Your task to perform on an android device: create a new album in the google photos Image 0: 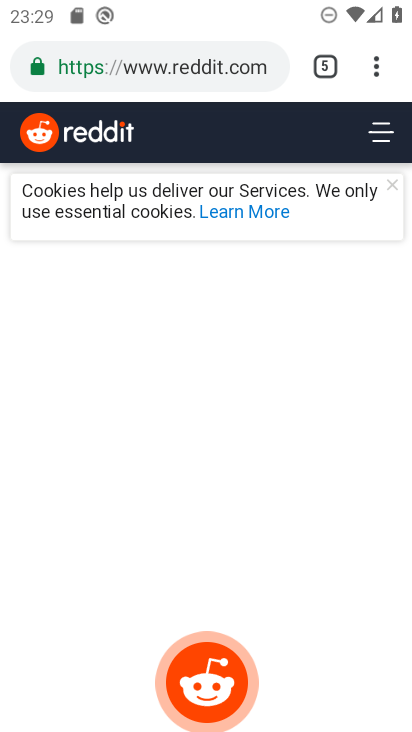
Step 0: press home button
Your task to perform on an android device: create a new album in the google photos Image 1: 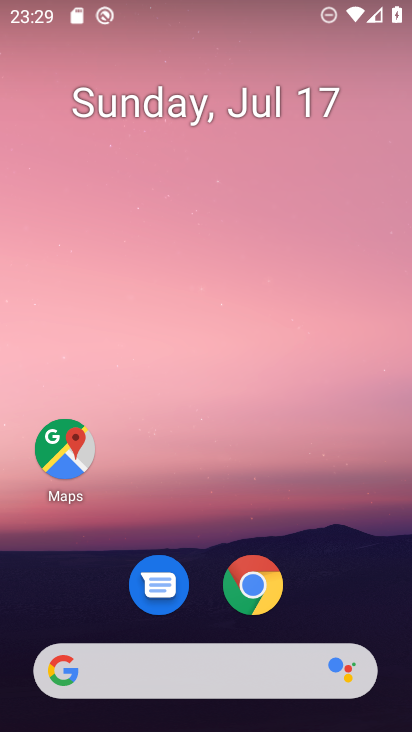
Step 1: drag from (169, 664) to (253, 161)
Your task to perform on an android device: create a new album in the google photos Image 2: 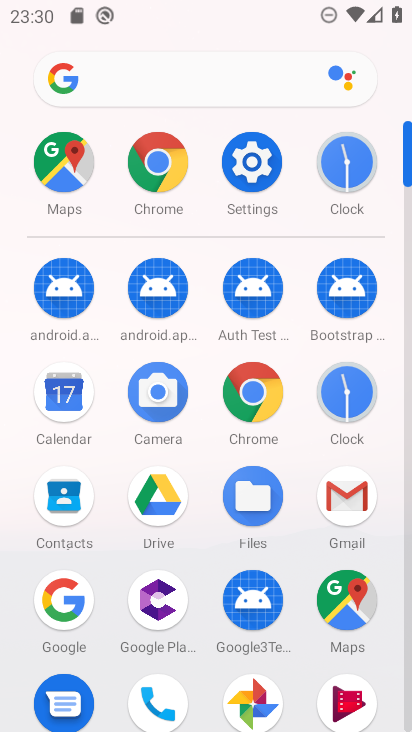
Step 2: click (257, 706)
Your task to perform on an android device: create a new album in the google photos Image 3: 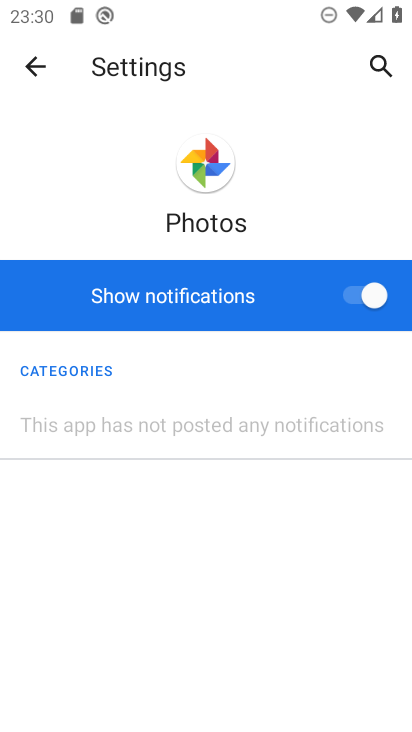
Step 3: click (36, 71)
Your task to perform on an android device: create a new album in the google photos Image 4: 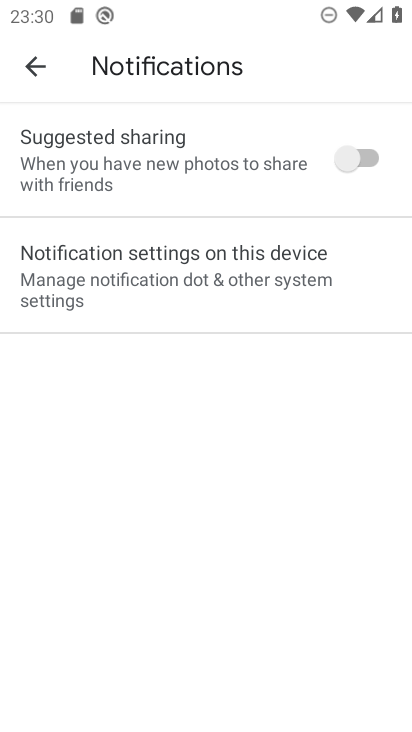
Step 4: click (36, 71)
Your task to perform on an android device: create a new album in the google photos Image 5: 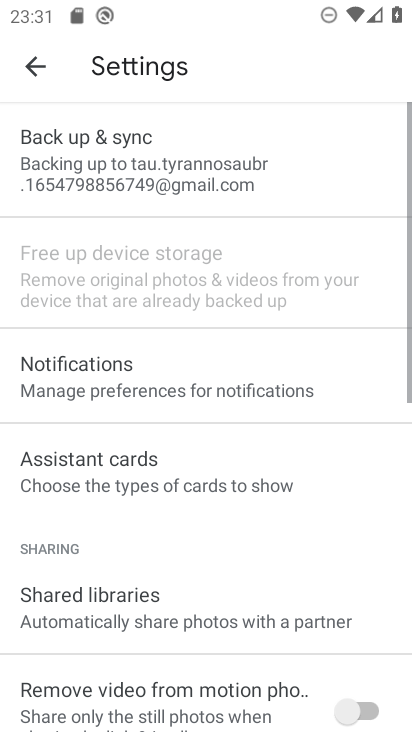
Step 5: click (36, 71)
Your task to perform on an android device: create a new album in the google photos Image 6: 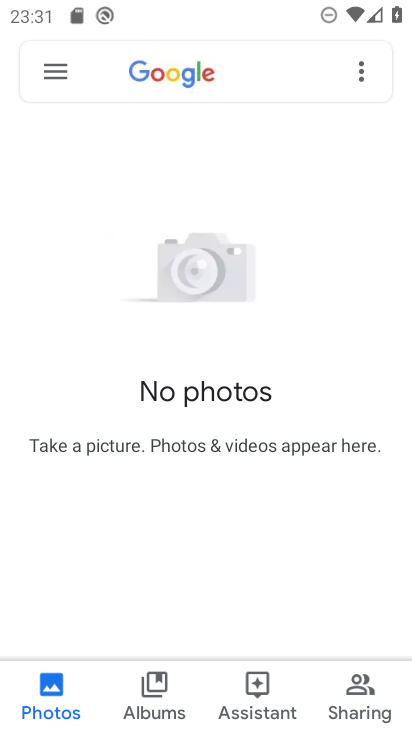
Step 6: click (154, 699)
Your task to perform on an android device: create a new album in the google photos Image 7: 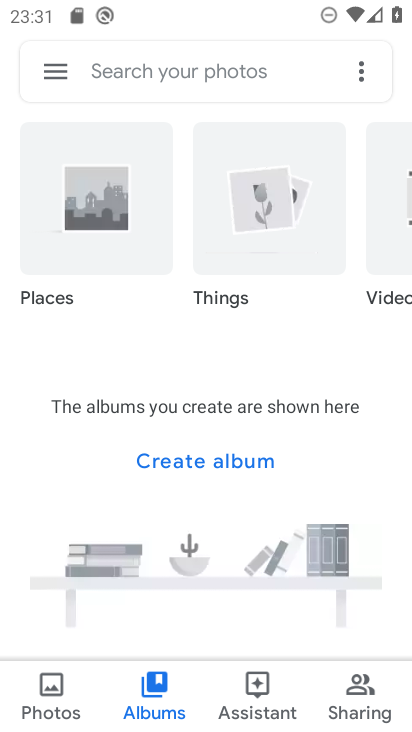
Step 7: task complete